Your task to perform on an android device: Open the map Image 0: 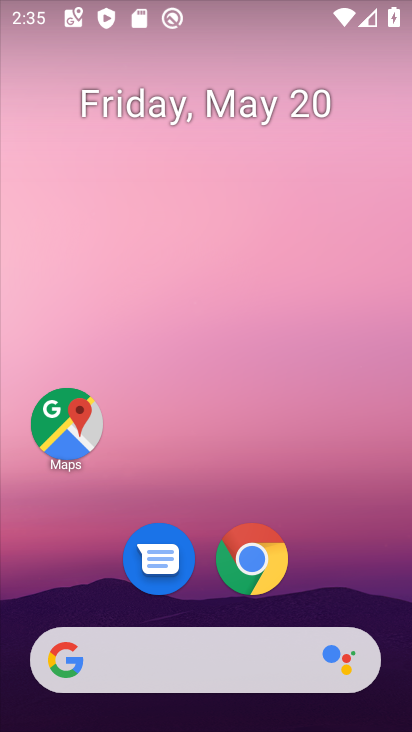
Step 0: click (71, 419)
Your task to perform on an android device: Open the map Image 1: 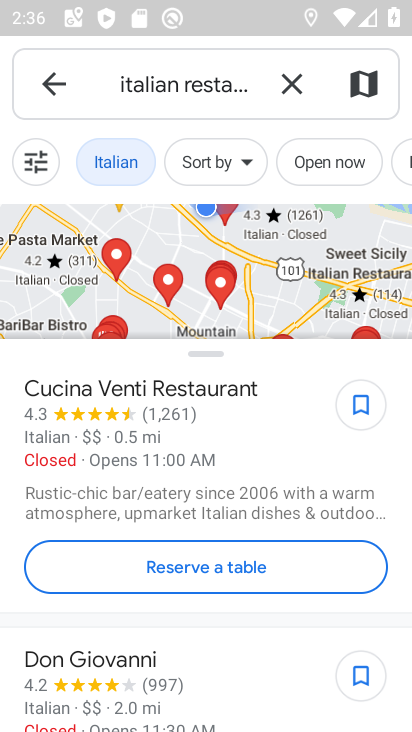
Step 1: press home button
Your task to perform on an android device: Open the map Image 2: 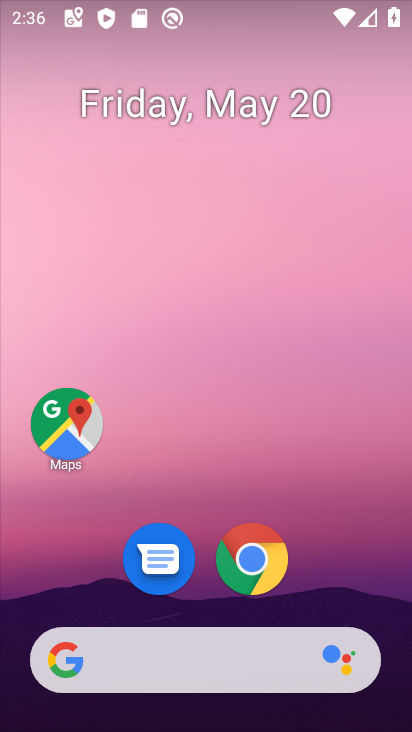
Step 2: click (70, 422)
Your task to perform on an android device: Open the map Image 3: 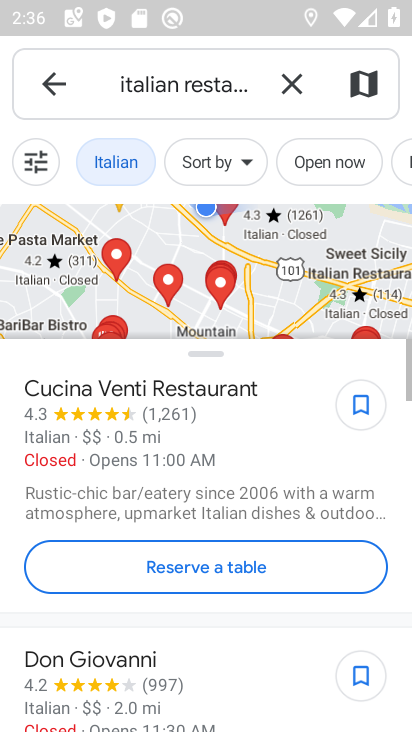
Step 3: click (291, 82)
Your task to perform on an android device: Open the map Image 4: 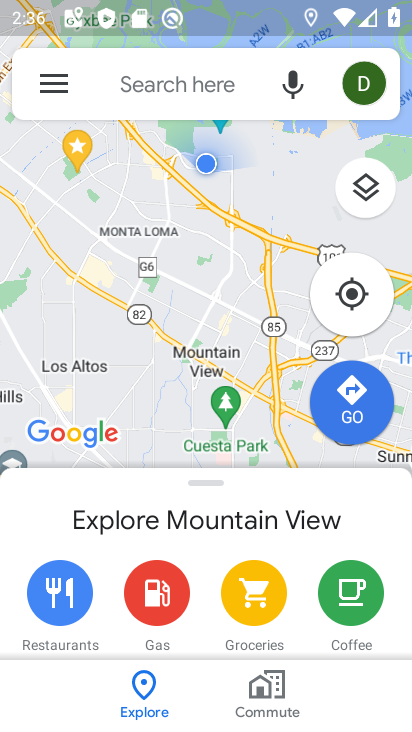
Step 4: task complete